Your task to perform on an android device: turn pop-ups off in chrome Image 0: 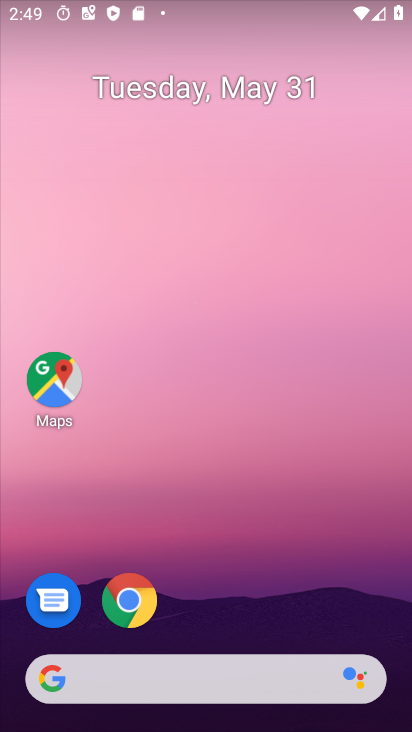
Step 0: press home button
Your task to perform on an android device: turn pop-ups off in chrome Image 1: 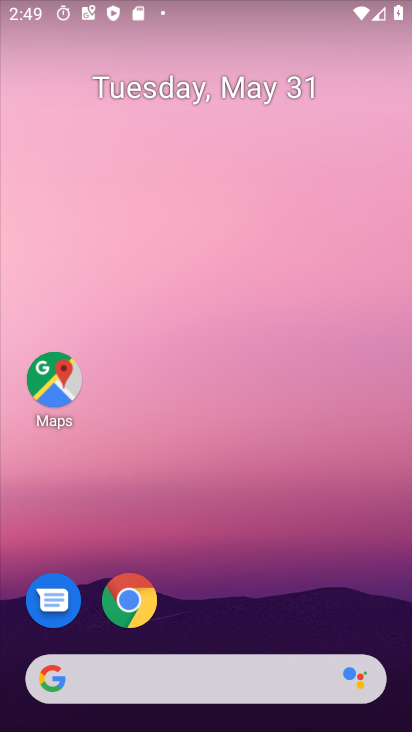
Step 1: click (127, 592)
Your task to perform on an android device: turn pop-ups off in chrome Image 2: 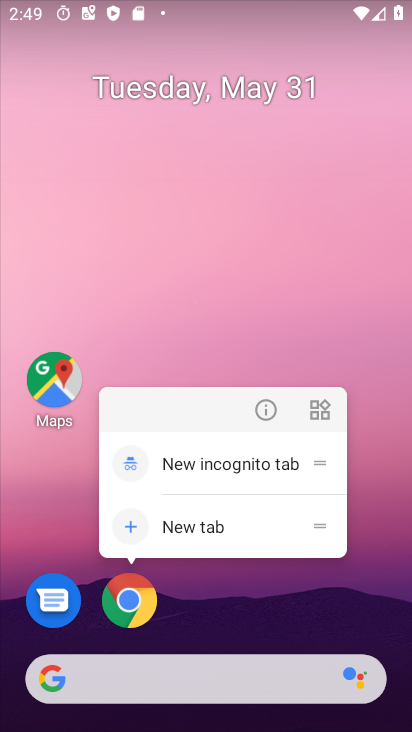
Step 2: click (126, 596)
Your task to perform on an android device: turn pop-ups off in chrome Image 3: 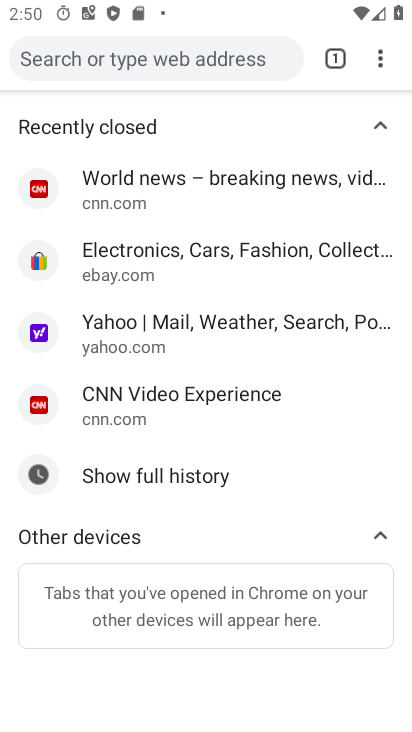
Step 3: click (385, 50)
Your task to perform on an android device: turn pop-ups off in chrome Image 4: 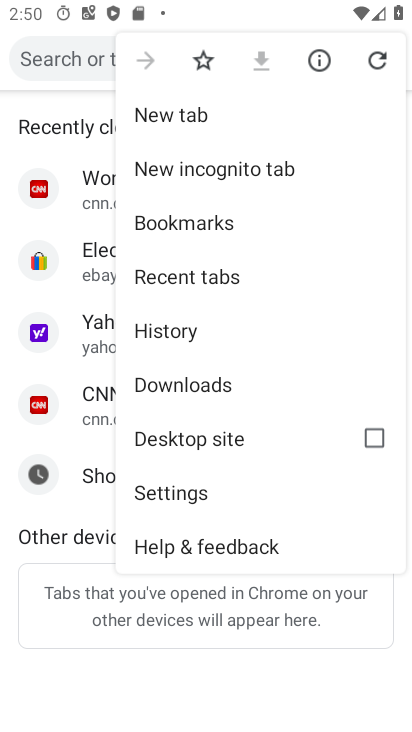
Step 4: click (219, 490)
Your task to perform on an android device: turn pop-ups off in chrome Image 5: 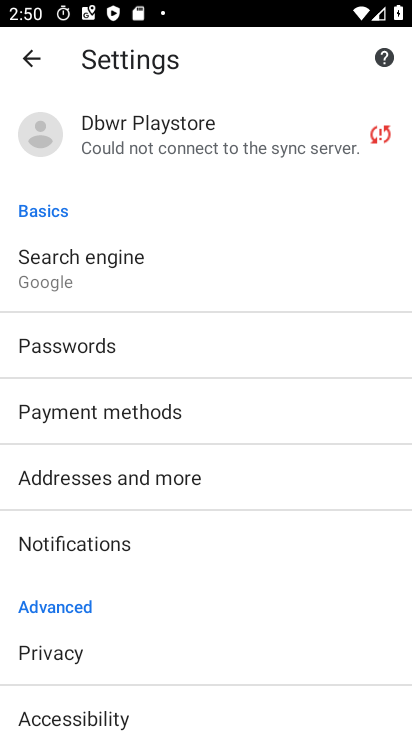
Step 5: drag from (232, 378) to (245, 121)
Your task to perform on an android device: turn pop-ups off in chrome Image 6: 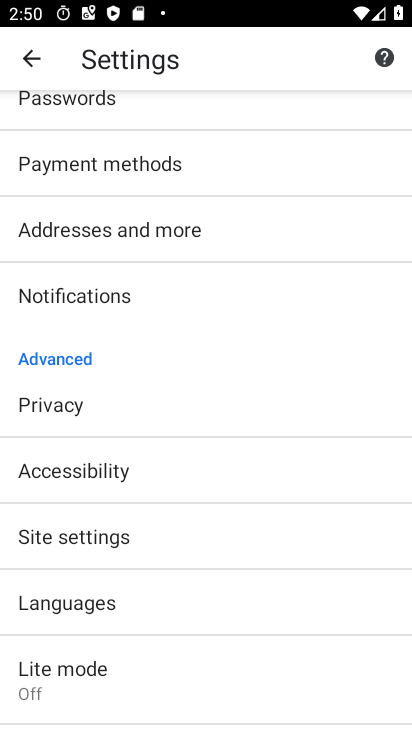
Step 6: click (147, 534)
Your task to perform on an android device: turn pop-ups off in chrome Image 7: 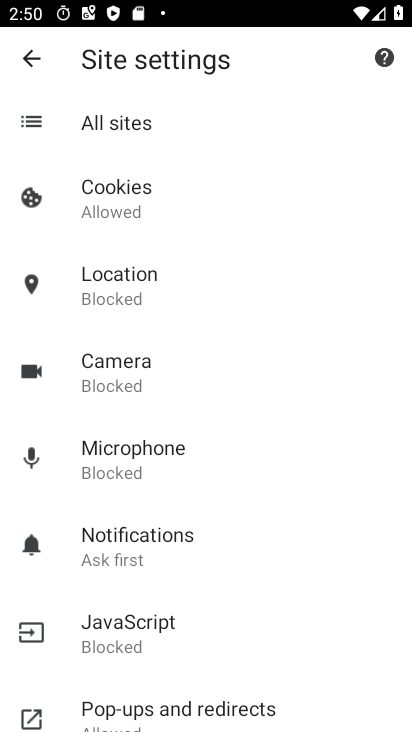
Step 7: click (224, 702)
Your task to perform on an android device: turn pop-ups off in chrome Image 8: 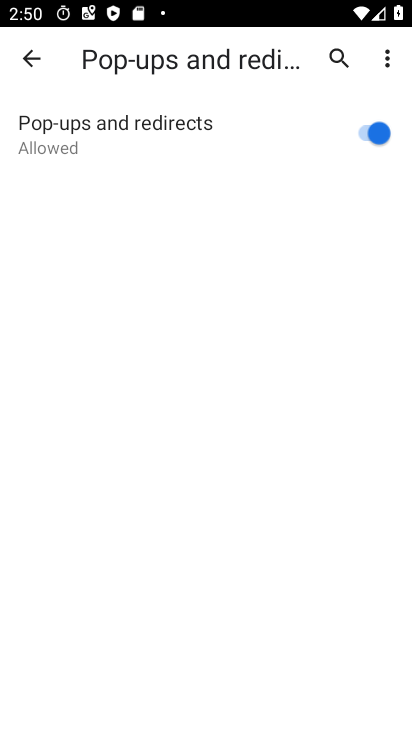
Step 8: click (368, 133)
Your task to perform on an android device: turn pop-ups off in chrome Image 9: 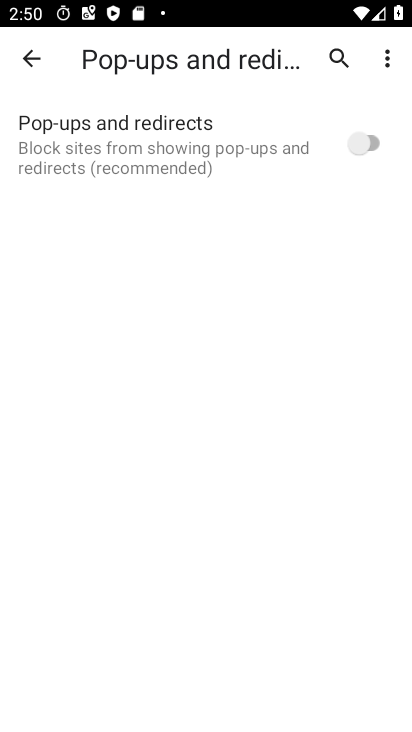
Step 9: task complete